Your task to perform on an android device: Toggle the flashlight Image 0: 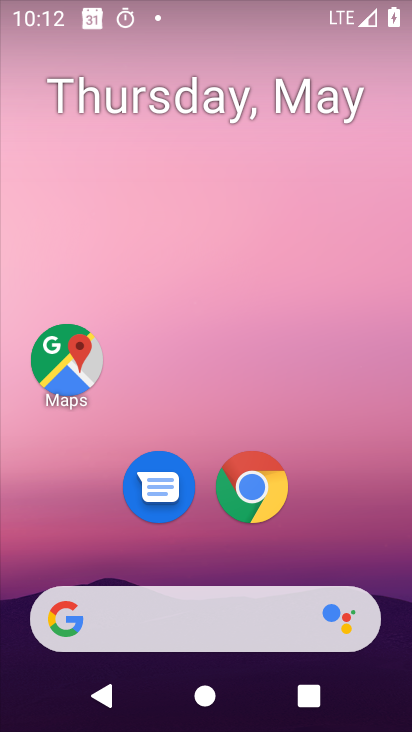
Step 0: drag from (211, 631) to (228, 38)
Your task to perform on an android device: Toggle the flashlight Image 1: 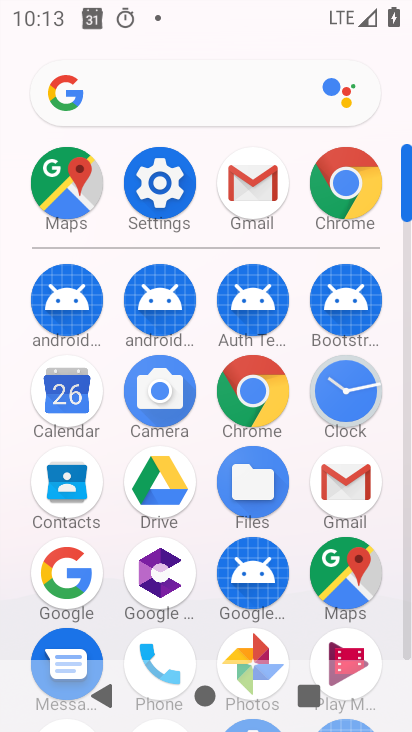
Step 1: task complete